Your task to perform on an android device: turn off smart reply in the gmail app Image 0: 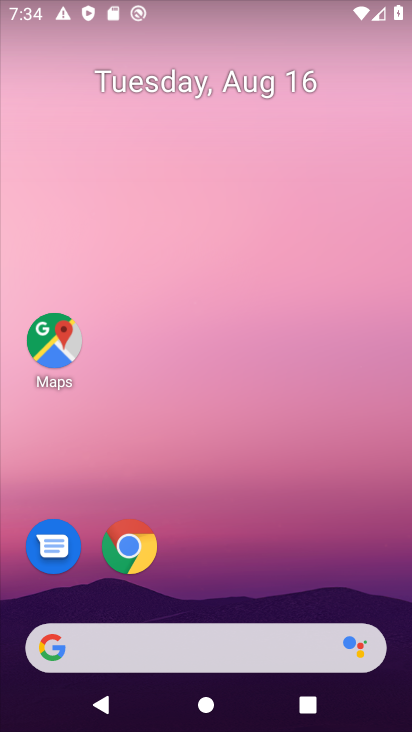
Step 0: drag from (233, 526) to (198, 2)
Your task to perform on an android device: turn off smart reply in the gmail app Image 1: 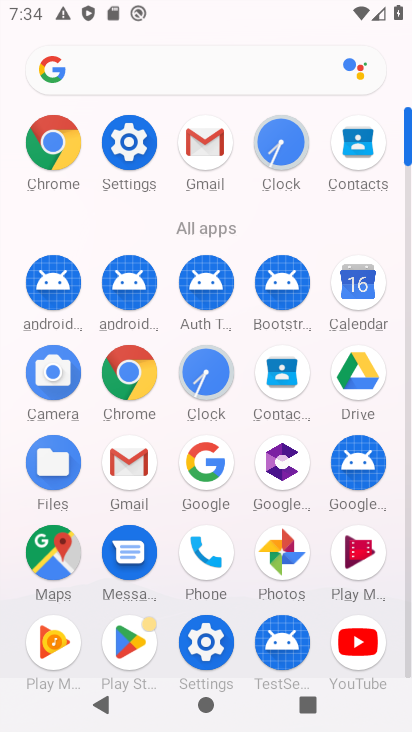
Step 1: click (210, 150)
Your task to perform on an android device: turn off smart reply in the gmail app Image 2: 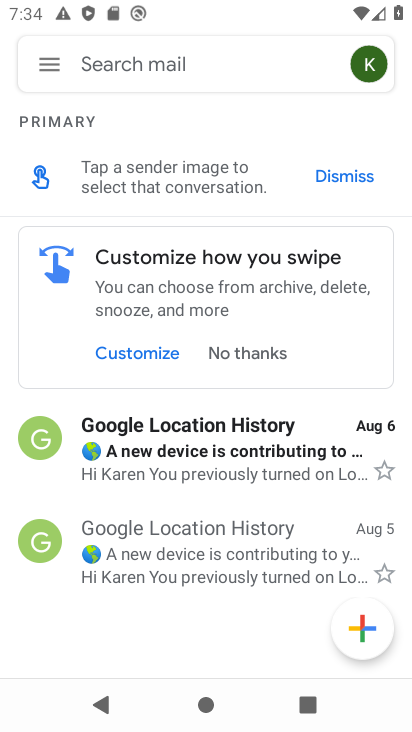
Step 2: click (48, 55)
Your task to perform on an android device: turn off smart reply in the gmail app Image 3: 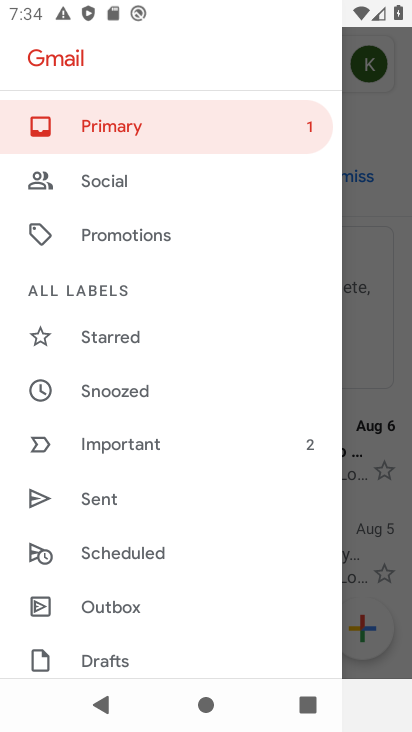
Step 3: drag from (145, 578) to (140, 57)
Your task to perform on an android device: turn off smart reply in the gmail app Image 4: 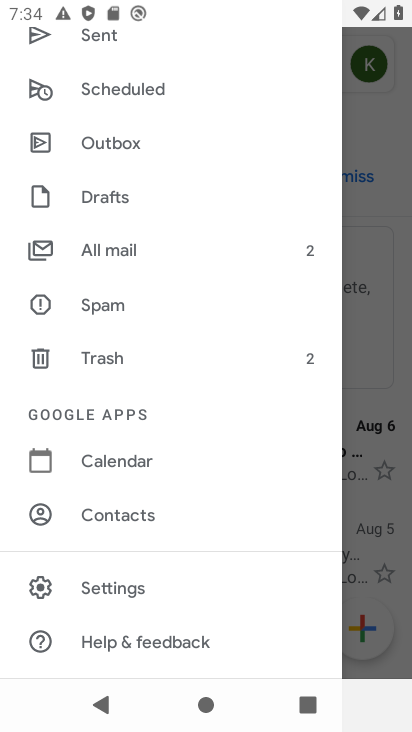
Step 4: click (128, 581)
Your task to perform on an android device: turn off smart reply in the gmail app Image 5: 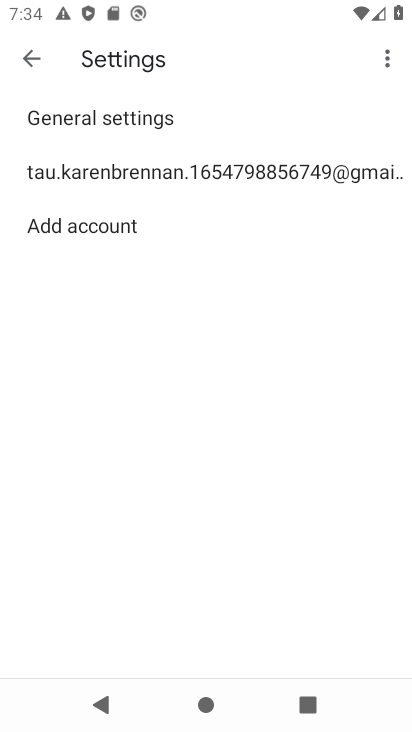
Step 5: click (233, 163)
Your task to perform on an android device: turn off smart reply in the gmail app Image 6: 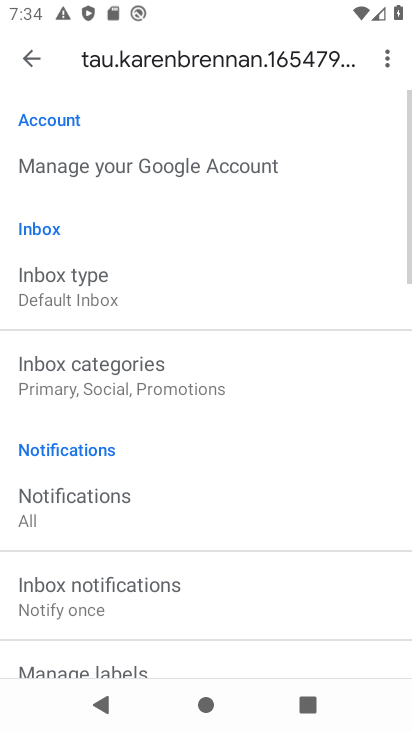
Step 6: drag from (259, 492) to (260, 10)
Your task to perform on an android device: turn off smart reply in the gmail app Image 7: 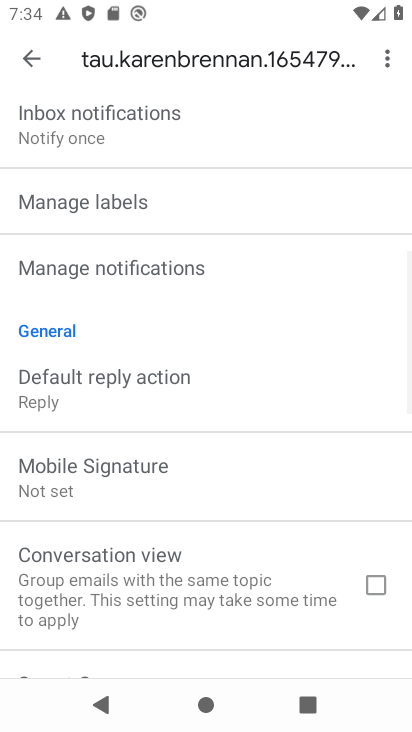
Step 7: drag from (230, 464) to (246, 1)
Your task to perform on an android device: turn off smart reply in the gmail app Image 8: 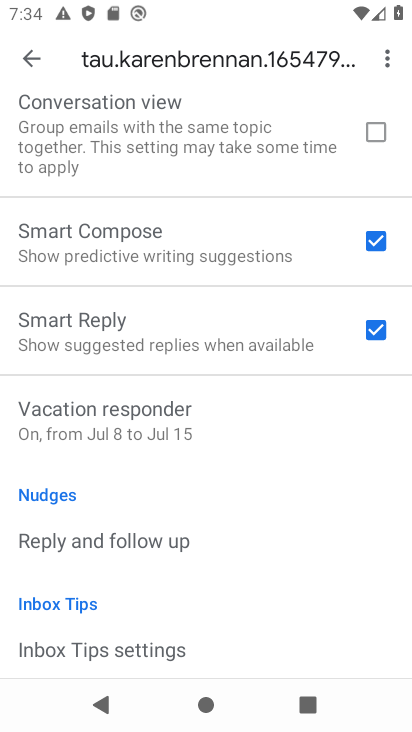
Step 8: click (373, 334)
Your task to perform on an android device: turn off smart reply in the gmail app Image 9: 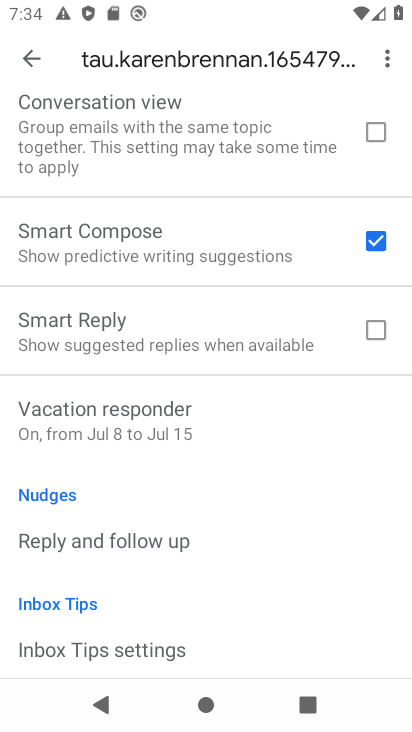
Step 9: task complete